Your task to perform on an android device: change timer sound Image 0: 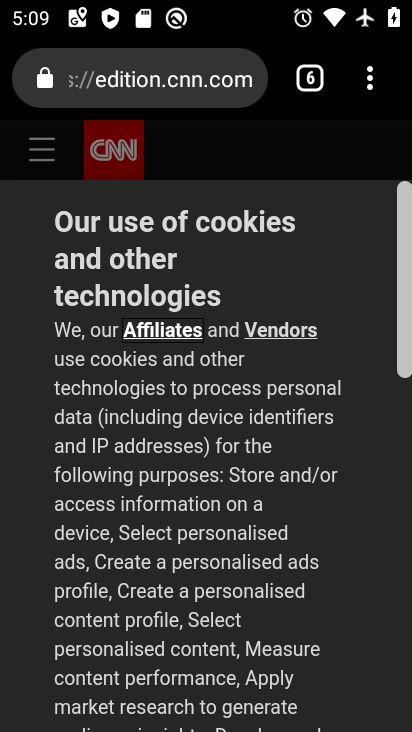
Step 0: press back button
Your task to perform on an android device: change timer sound Image 1: 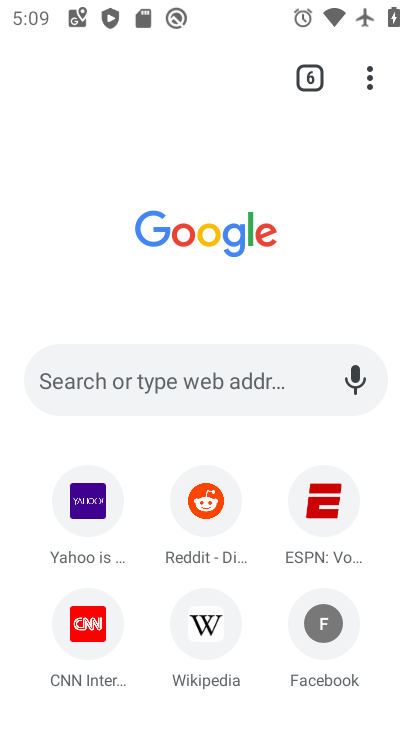
Step 1: press back button
Your task to perform on an android device: change timer sound Image 2: 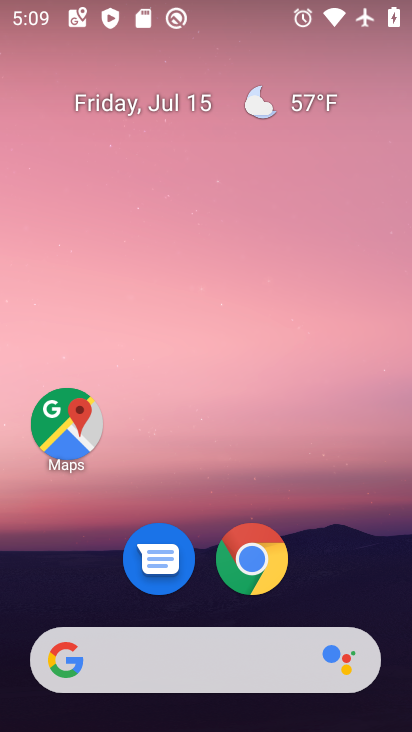
Step 2: drag from (80, 499) to (196, 73)
Your task to perform on an android device: change timer sound Image 3: 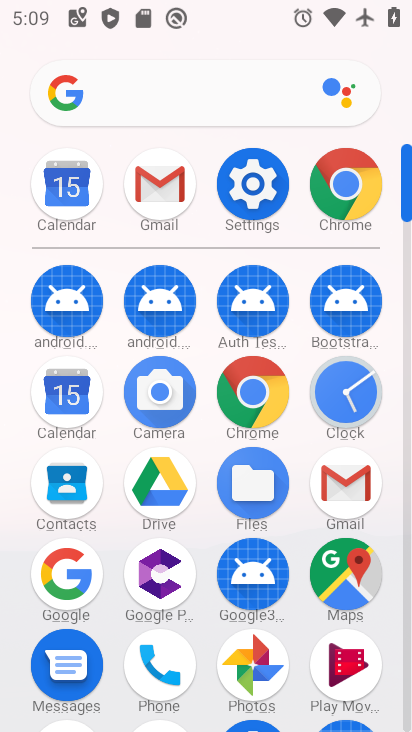
Step 3: click (335, 397)
Your task to perform on an android device: change timer sound Image 4: 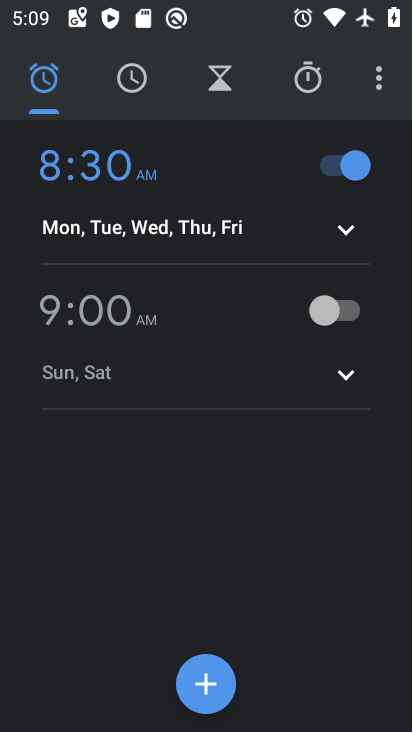
Step 4: click (377, 67)
Your task to perform on an android device: change timer sound Image 5: 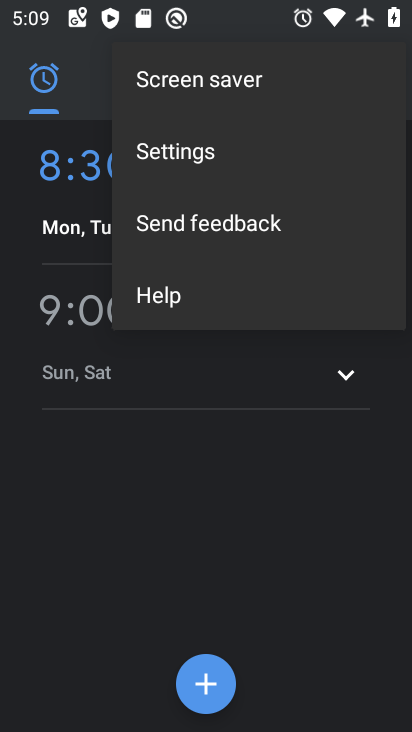
Step 5: click (186, 153)
Your task to perform on an android device: change timer sound Image 6: 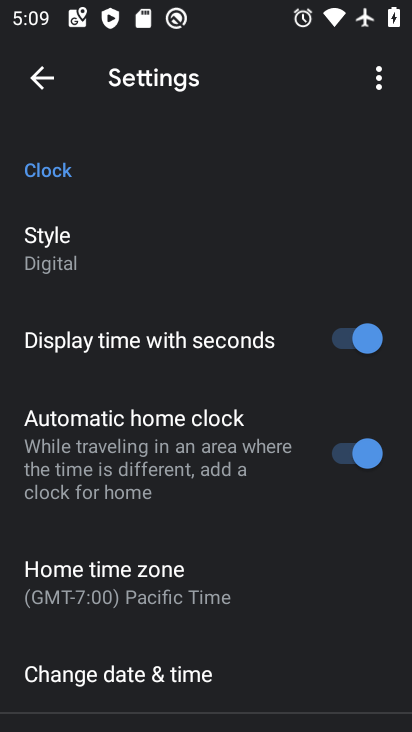
Step 6: drag from (135, 627) to (204, 192)
Your task to perform on an android device: change timer sound Image 7: 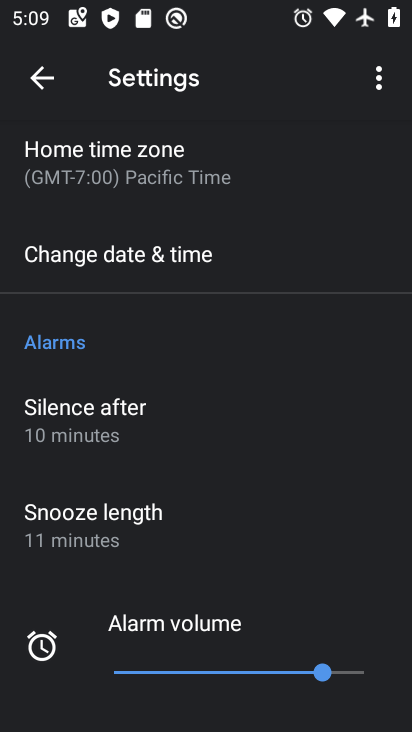
Step 7: drag from (174, 597) to (271, 193)
Your task to perform on an android device: change timer sound Image 8: 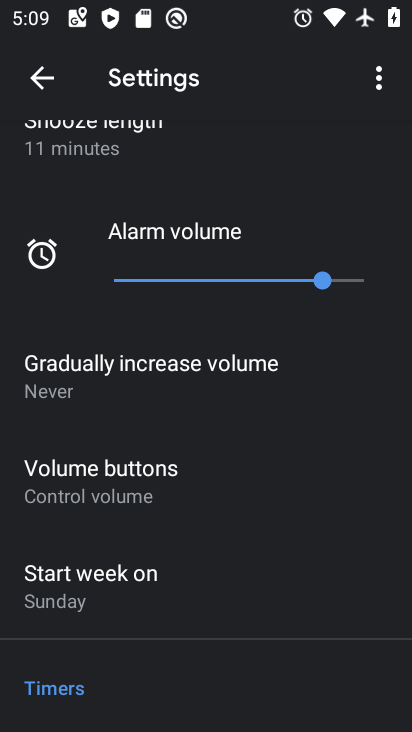
Step 8: drag from (174, 619) to (245, 225)
Your task to perform on an android device: change timer sound Image 9: 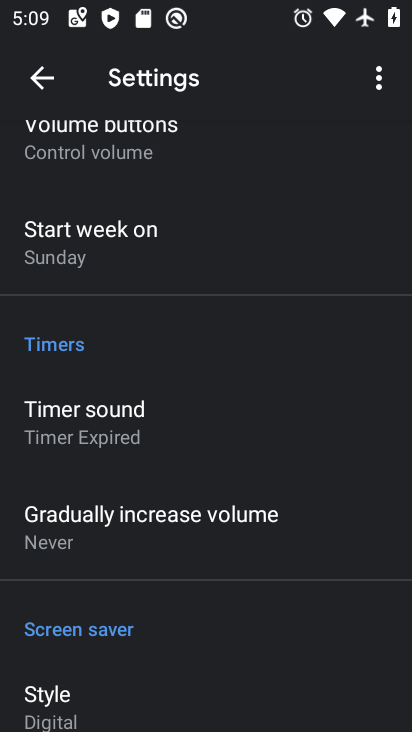
Step 9: click (92, 417)
Your task to perform on an android device: change timer sound Image 10: 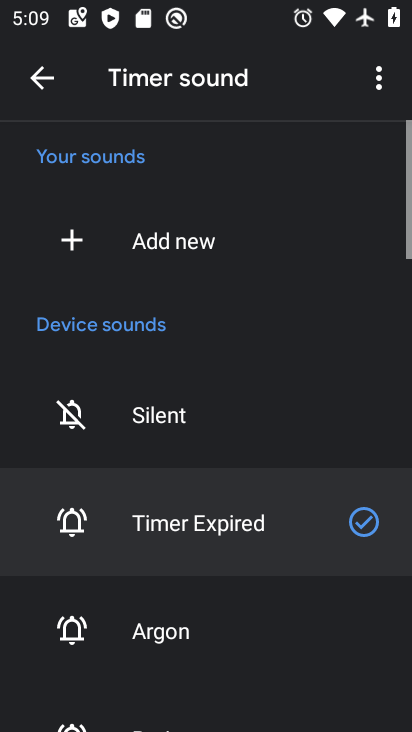
Step 10: click (162, 624)
Your task to perform on an android device: change timer sound Image 11: 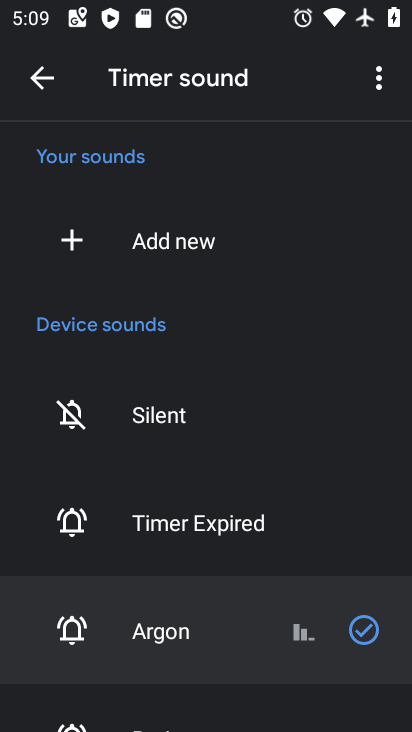
Step 11: task complete